Your task to perform on an android device: manage bookmarks in the chrome app Image 0: 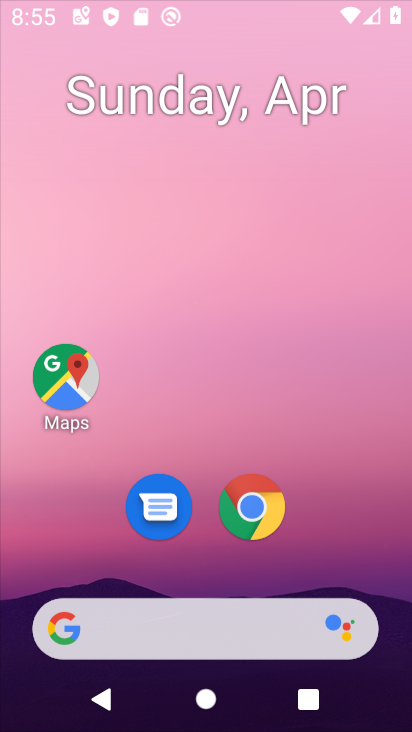
Step 0: drag from (358, 23) to (300, 13)
Your task to perform on an android device: manage bookmarks in the chrome app Image 1: 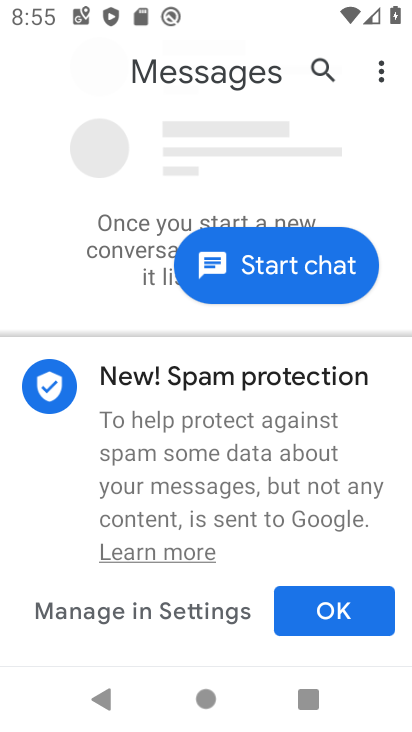
Step 1: press home button
Your task to perform on an android device: manage bookmarks in the chrome app Image 2: 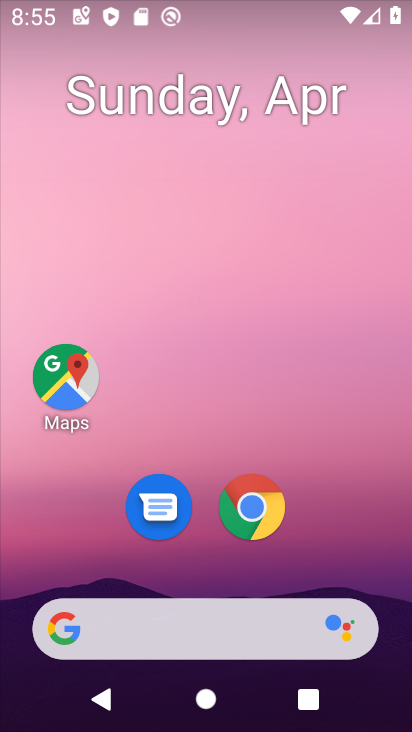
Step 2: click (250, 512)
Your task to perform on an android device: manage bookmarks in the chrome app Image 3: 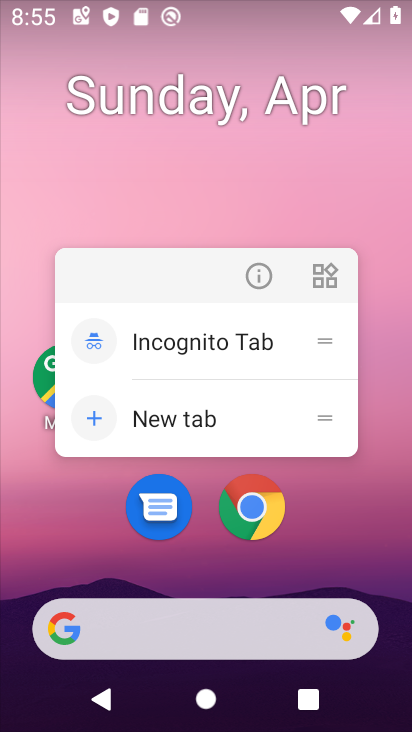
Step 3: click (250, 512)
Your task to perform on an android device: manage bookmarks in the chrome app Image 4: 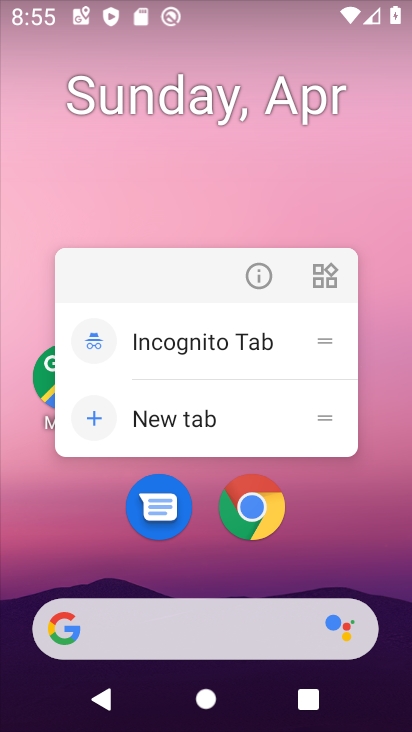
Step 4: click (246, 511)
Your task to perform on an android device: manage bookmarks in the chrome app Image 5: 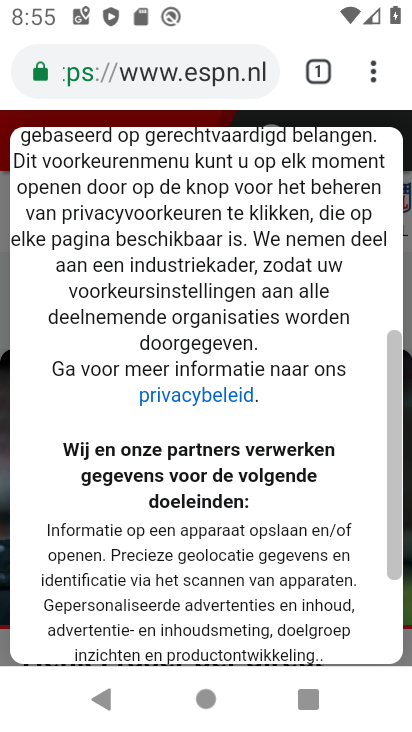
Step 5: click (383, 66)
Your task to perform on an android device: manage bookmarks in the chrome app Image 6: 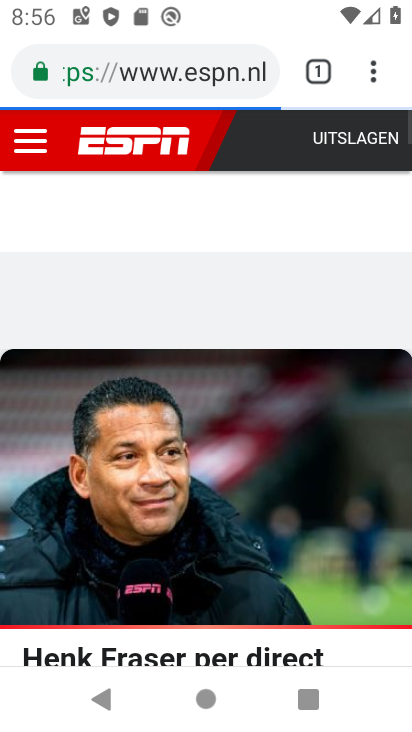
Step 6: click (350, 64)
Your task to perform on an android device: manage bookmarks in the chrome app Image 7: 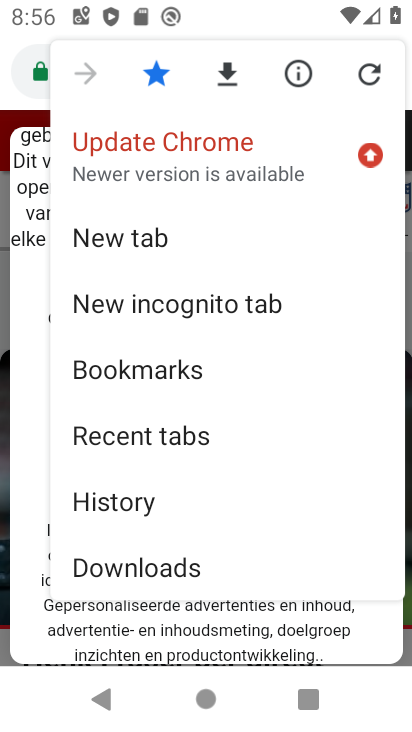
Step 7: click (200, 363)
Your task to perform on an android device: manage bookmarks in the chrome app Image 8: 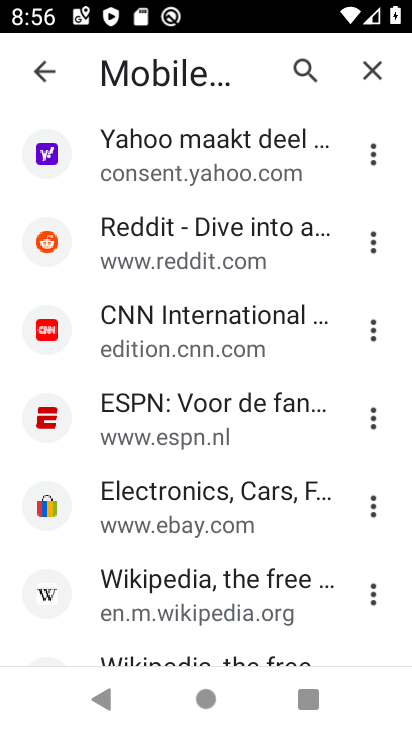
Step 8: task complete